Your task to perform on an android device: turn on location history Image 0: 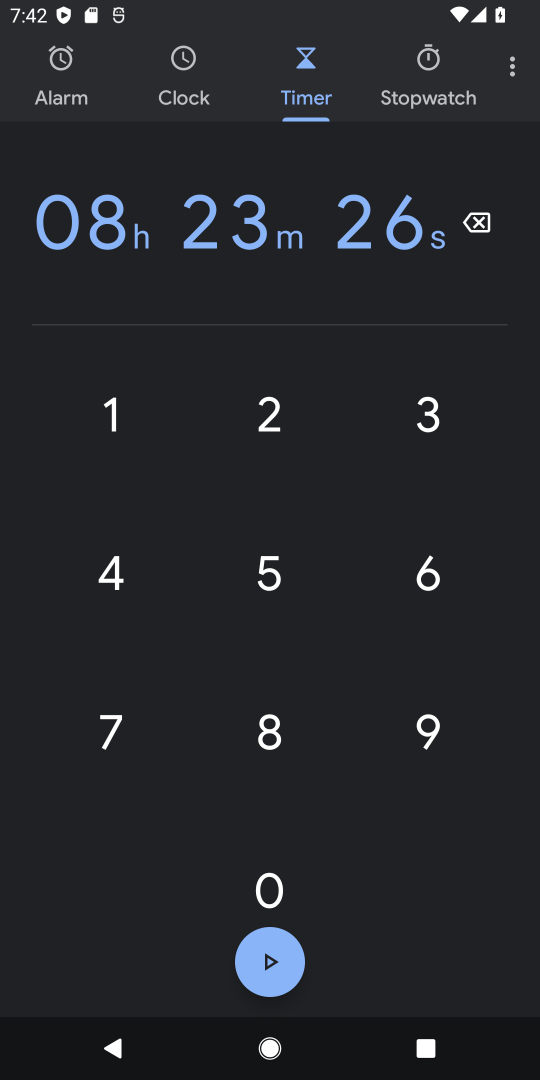
Step 0: press home button
Your task to perform on an android device: turn on location history Image 1: 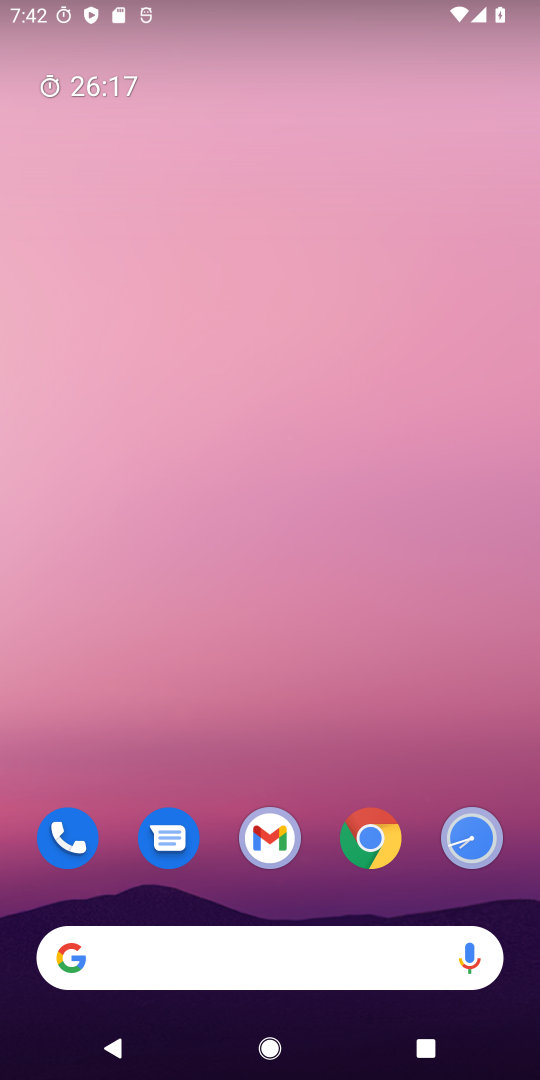
Step 1: drag from (366, 850) to (391, 301)
Your task to perform on an android device: turn on location history Image 2: 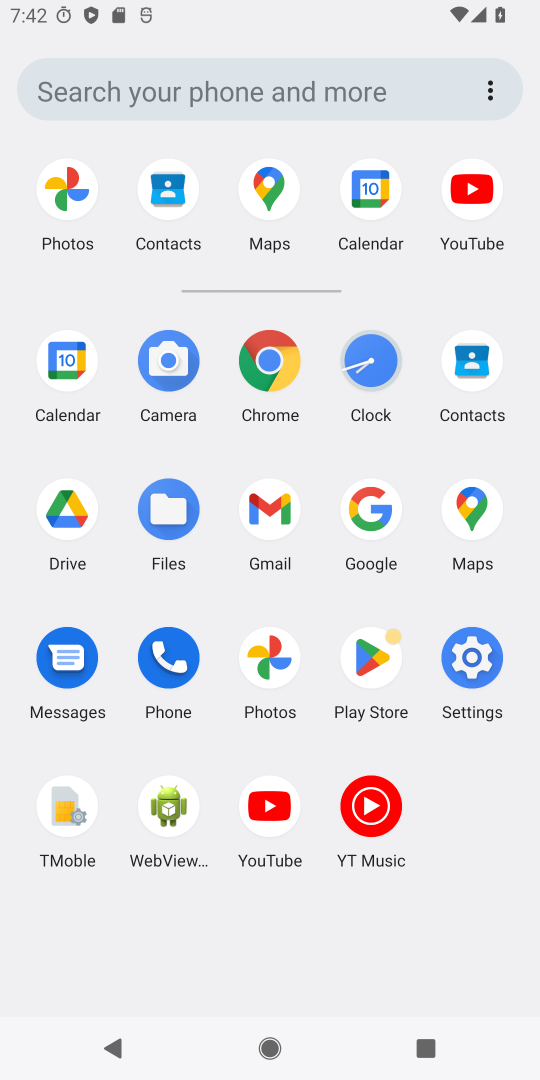
Step 2: click (275, 178)
Your task to perform on an android device: turn on location history Image 3: 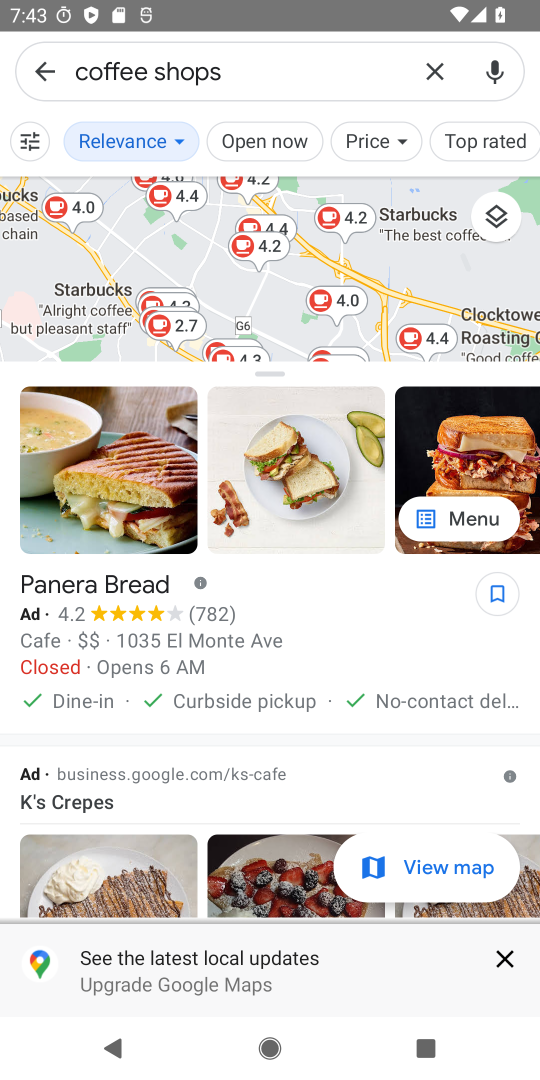
Step 3: click (55, 65)
Your task to perform on an android device: turn on location history Image 4: 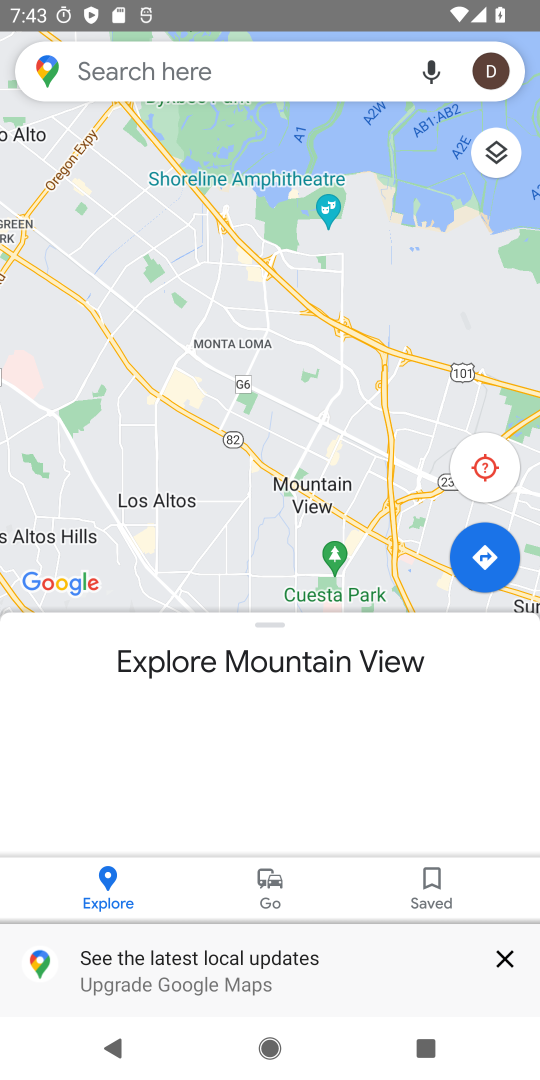
Step 4: click (496, 67)
Your task to perform on an android device: turn on location history Image 5: 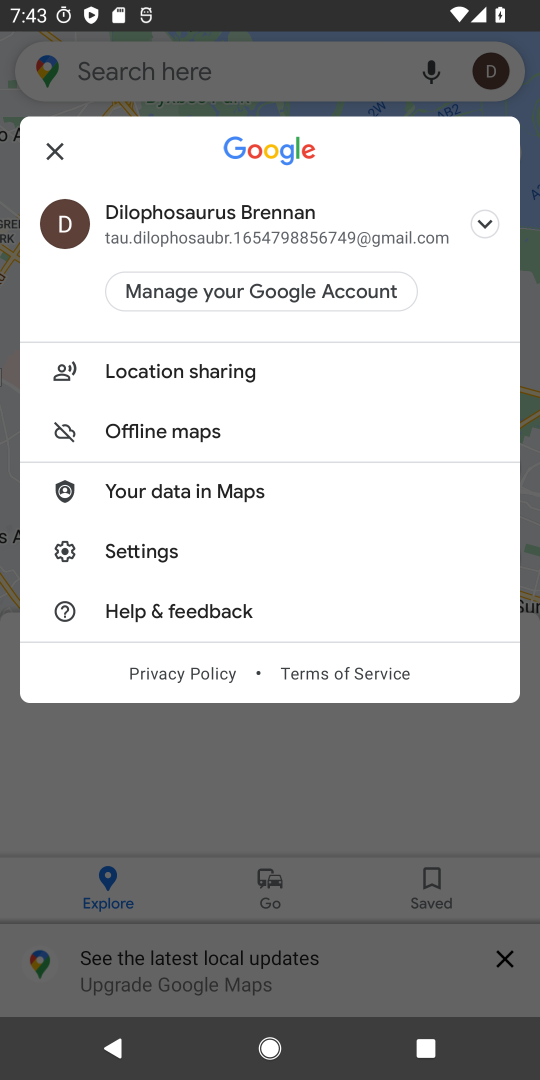
Step 5: task complete